Your task to perform on an android device: Search for flights from Mexico city to Seattle Image 0: 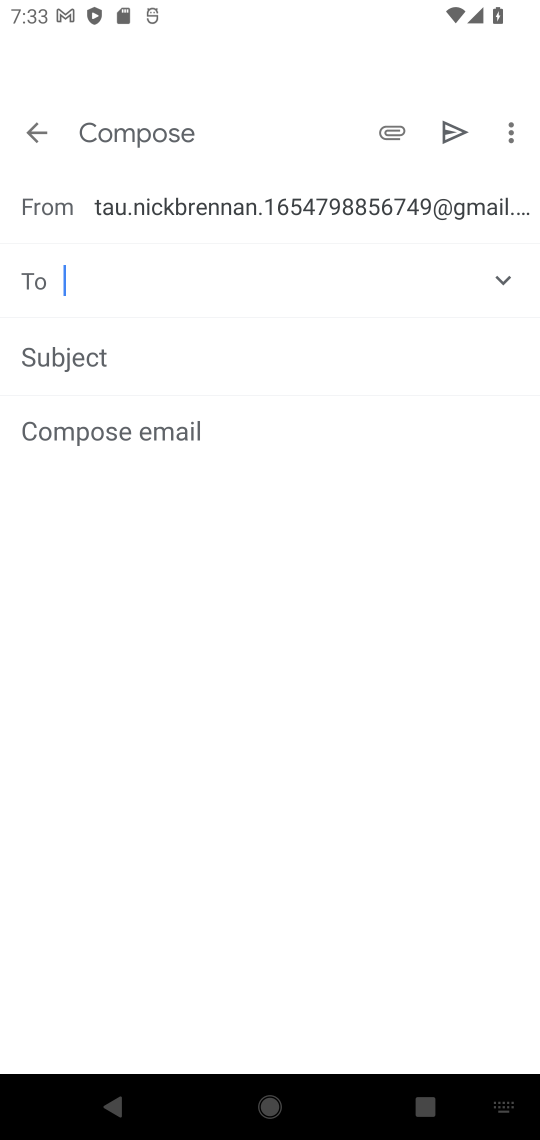
Step 0: press home button
Your task to perform on an android device: Search for flights from Mexico city to Seattle Image 1: 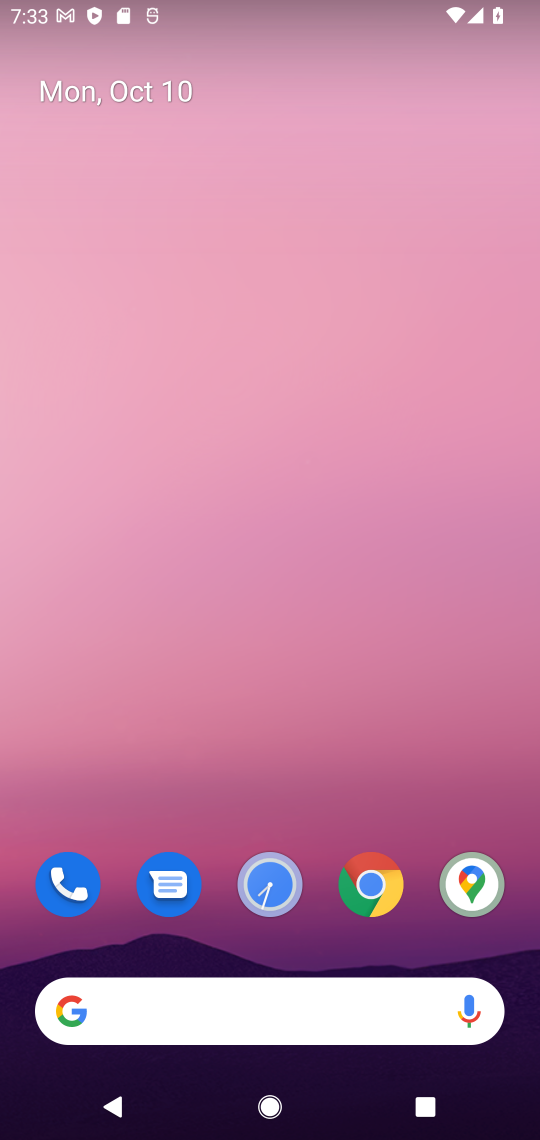
Step 1: click (457, 771)
Your task to perform on an android device: Search for flights from Mexico city to Seattle Image 2: 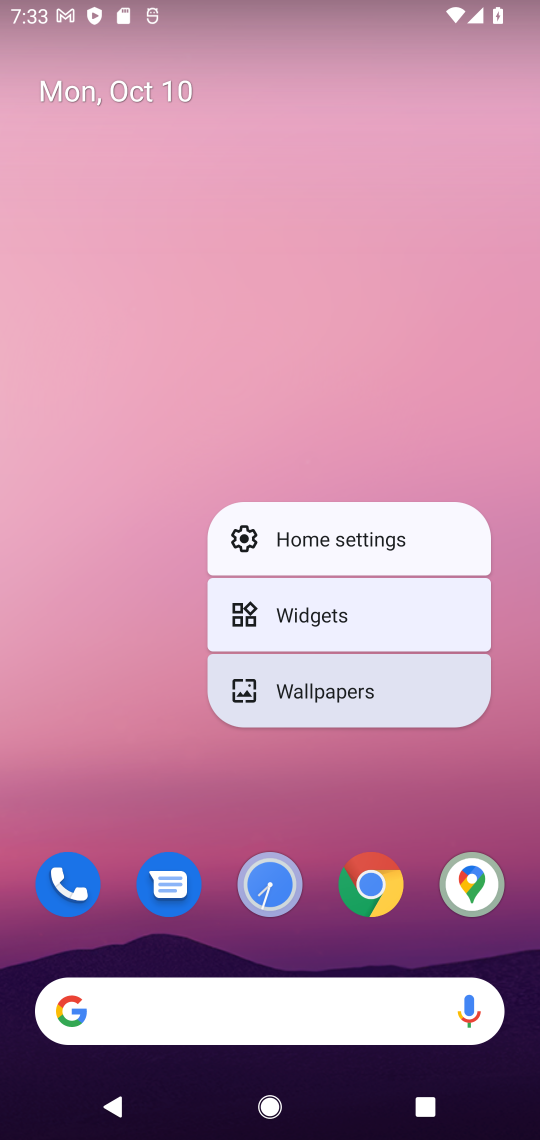
Step 2: click (380, 892)
Your task to perform on an android device: Search for flights from Mexico city to Seattle Image 3: 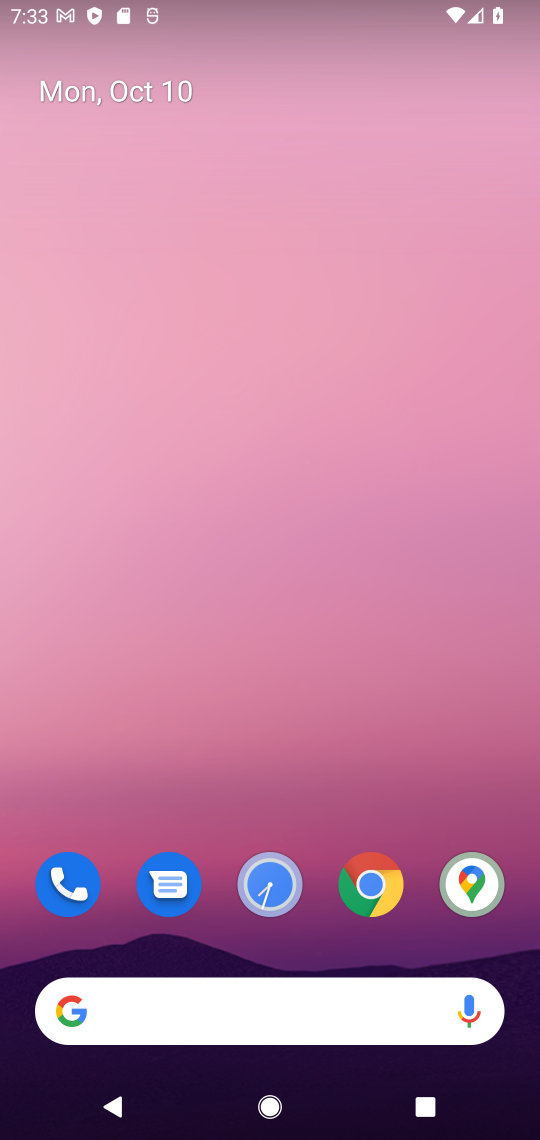
Step 3: click (354, 907)
Your task to perform on an android device: Search for flights from Mexico city to Seattle Image 4: 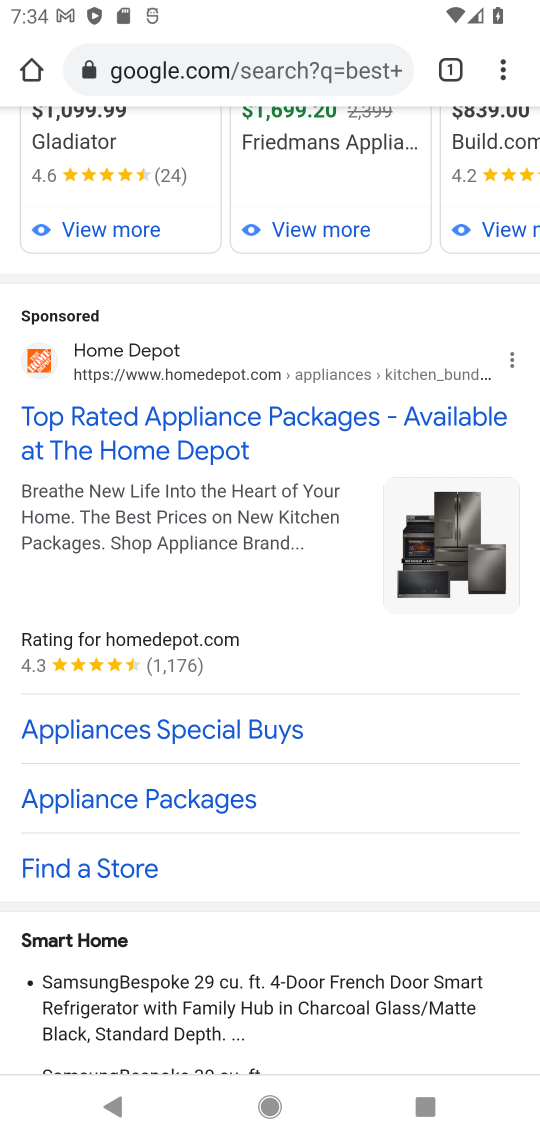
Step 4: click (306, 69)
Your task to perform on an android device: Search for flights from Mexico city to Seattle Image 5: 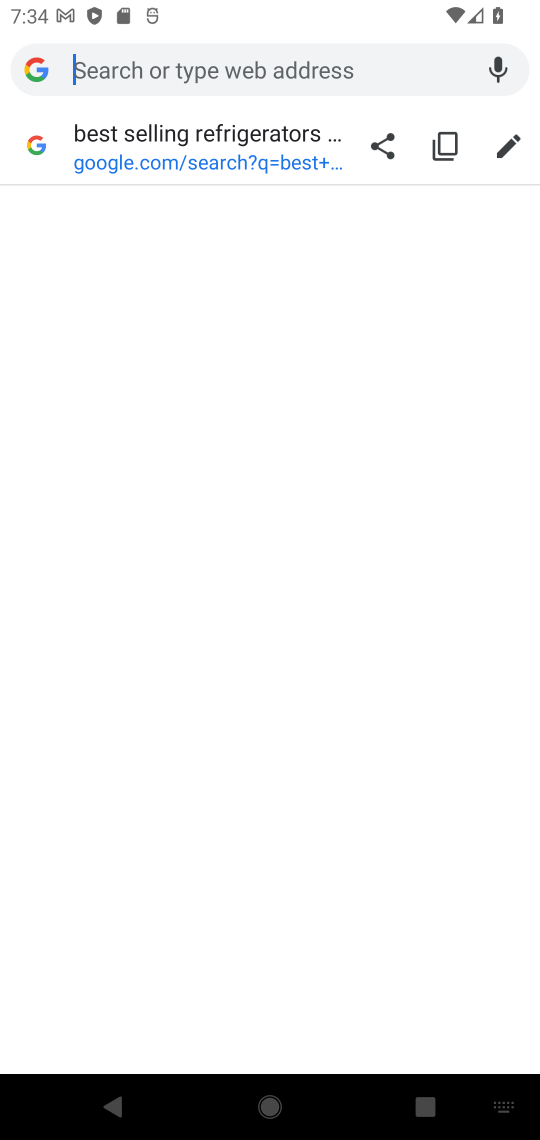
Step 5: type "mexico city to seattle flights"
Your task to perform on an android device: Search for flights from Mexico city to Seattle Image 6: 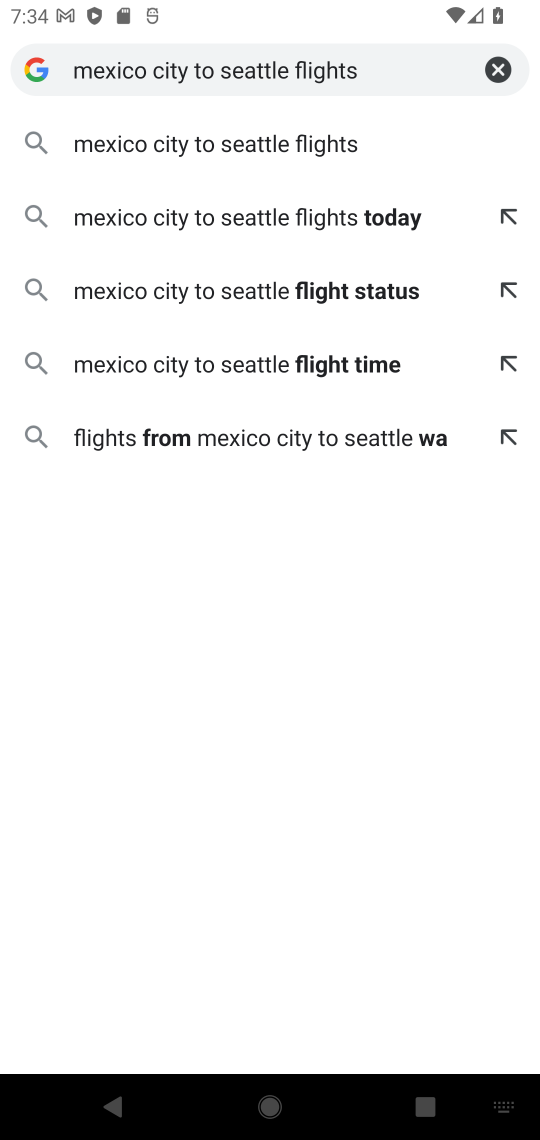
Step 6: click (351, 148)
Your task to perform on an android device: Search for flights from Mexico city to Seattle Image 7: 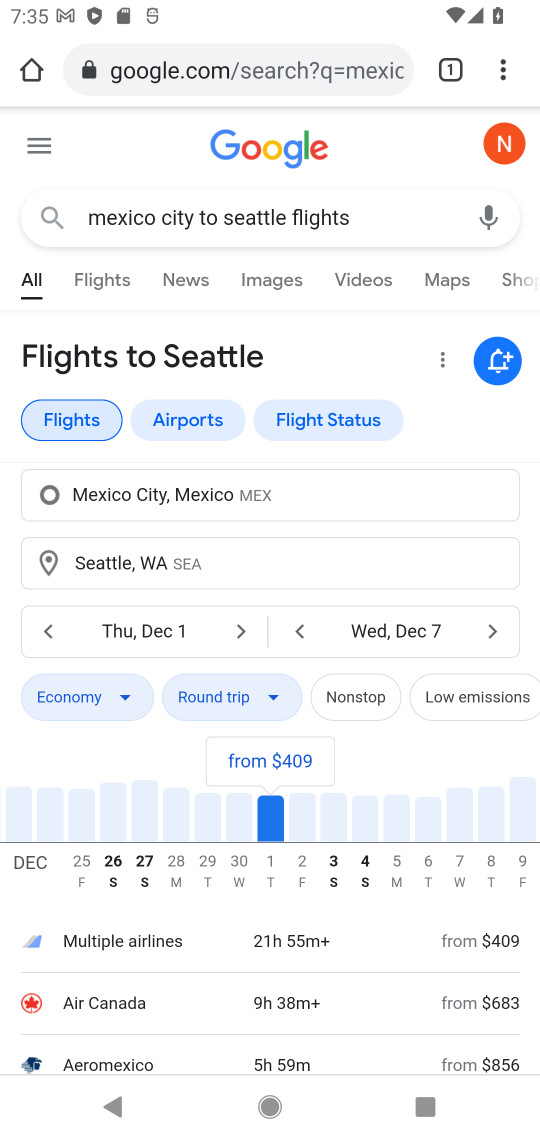
Step 7: task complete